Your task to perform on an android device: manage bookmarks in the chrome app Image 0: 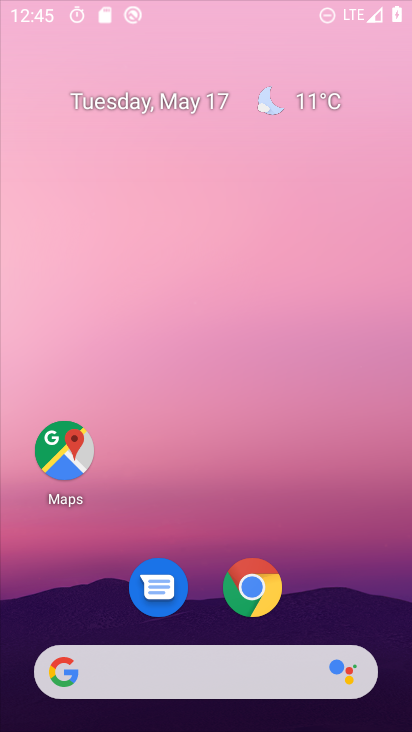
Step 0: click (264, 254)
Your task to perform on an android device: manage bookmarks in the chrome app Image 1: 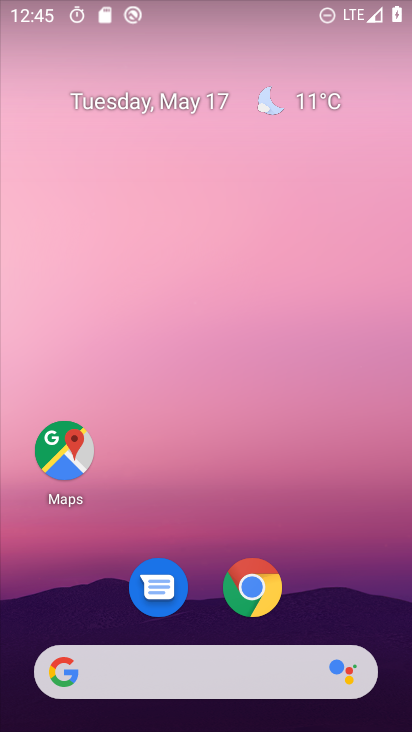
Step 1: drag from (213, 640) to (272, 200)
Your task to perform on an android device: manage bookmarks in the chrome app Image 2: 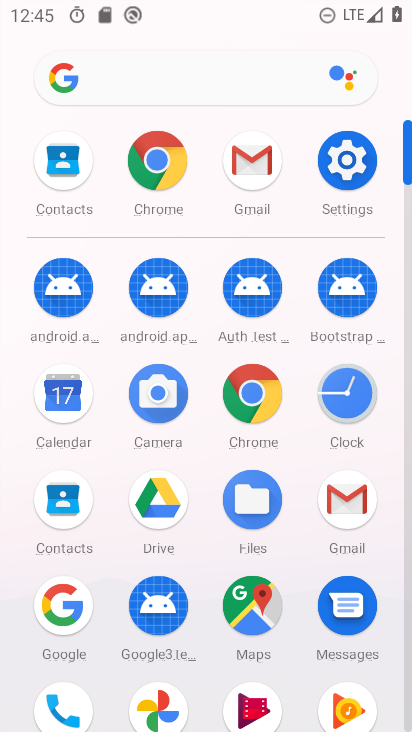
Step 2: click (250, 402)
Your task to perform on an android device: manage bookmarks in the chrome app Image 3: 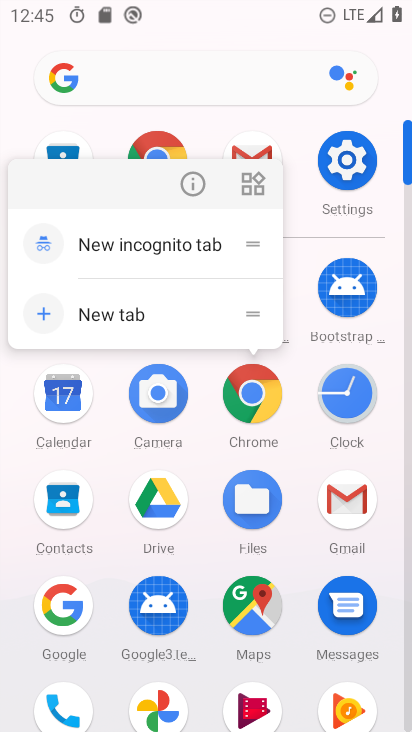
Step 3: click (190, 196)
Your task to perform on an android device: manage bookmarks in the chrome app Image 4: 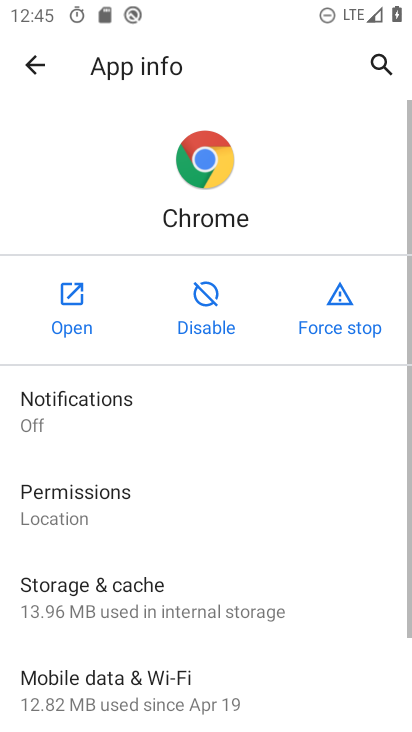
Step 4: click (74, 314)
Your task to perform on an android device: manage bookmarks in the chrome app Image 5: 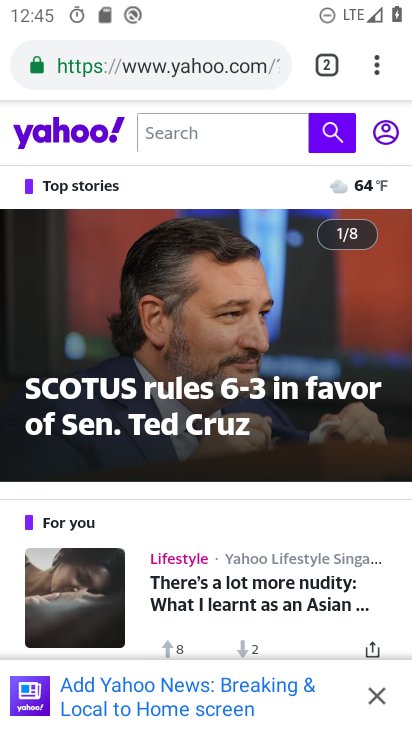
Step 5: click (381, 65)
Your task to perform on an android device: manage bookmarks in the chrome app Image 6: 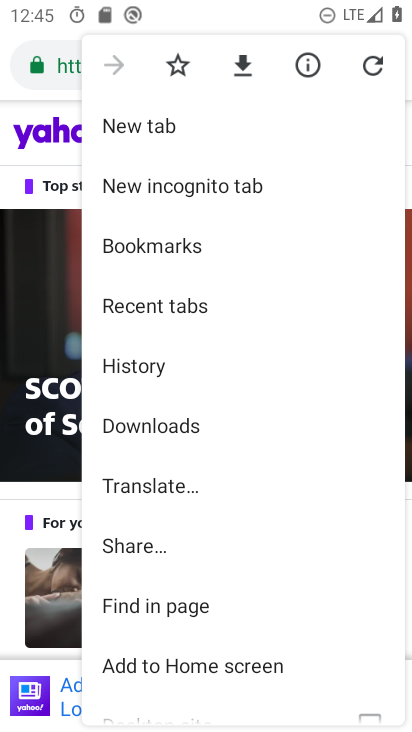
Step 6: click (181, 247)
Your task to perform on an android device: manage bookmarks in the chrome app Image 7: 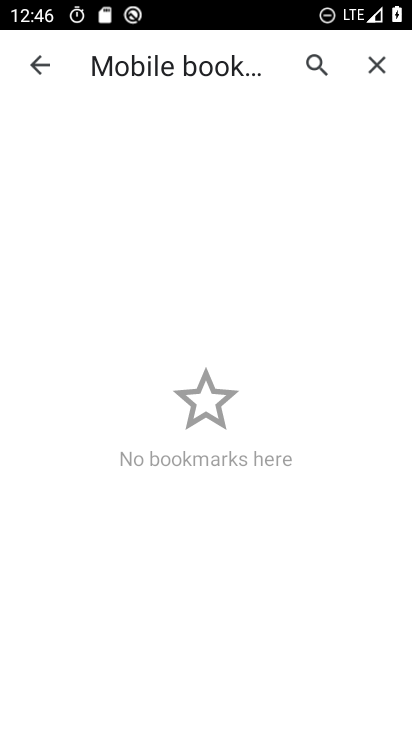
Step 7: click (145, 384)
Your task to perform on an android device: manage bookmarks in the chrome app Image 8: 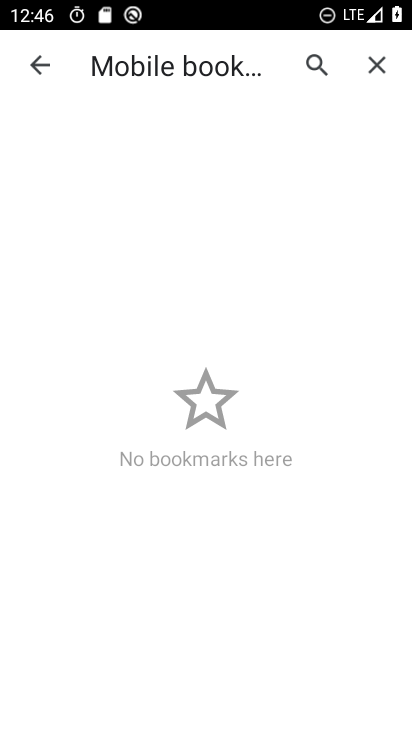
Step 8: task complete